Your task to perform on an android device: create a new album in the google photos Image 0: 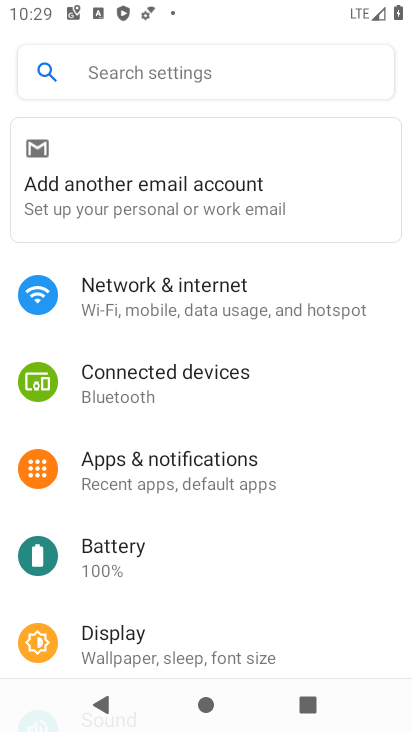
Step 0: press home button
Your task to perform on an android device: create a new album in the google photos Image 1: 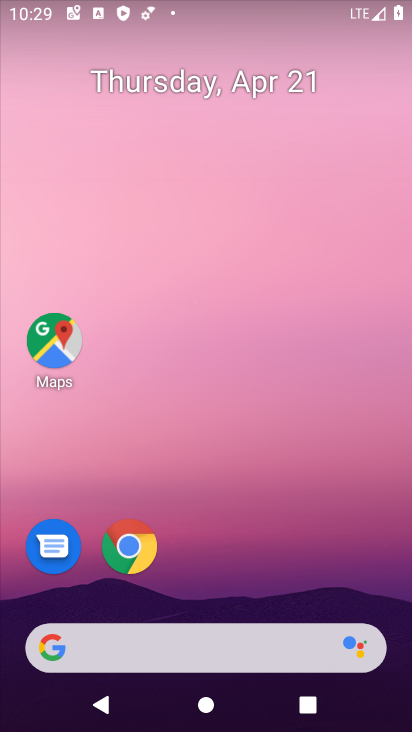
Step 1: drag from (384, 625) to (325, 176)
Your task to perform on an android device: create a new album in the google photos Image 2: 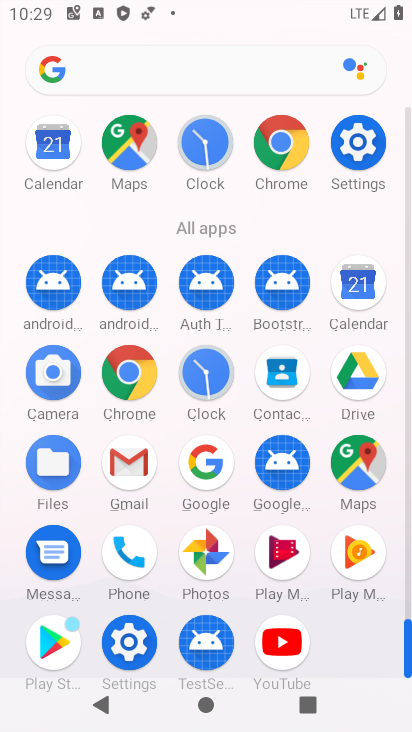
Step 2: click (203, 551)
Your task to perform on an android device: create a new album in the google photos Image 3: 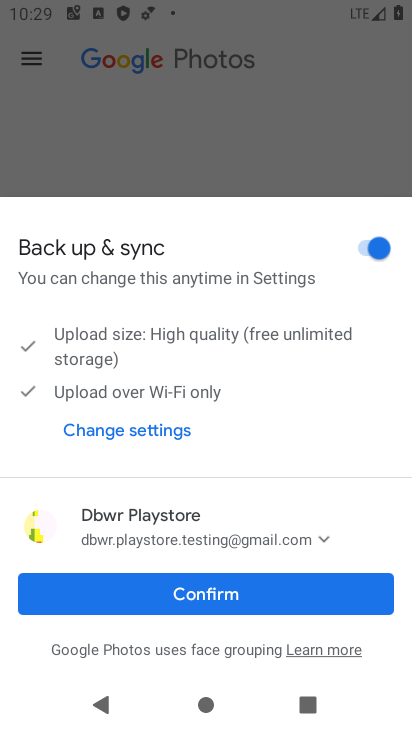
Step 3: click (210, 592)
Your task to perform on an android device: create a new album in the google photos Image 4: 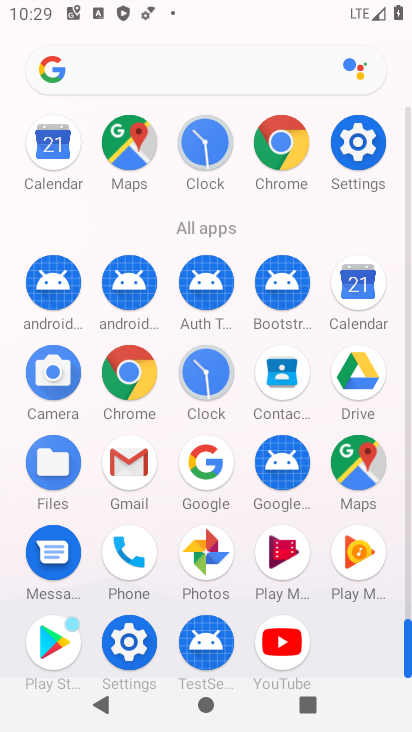
Step 4: click (205, 550)
Your task to perform on an android device: create a new album in the google photos Image 5: 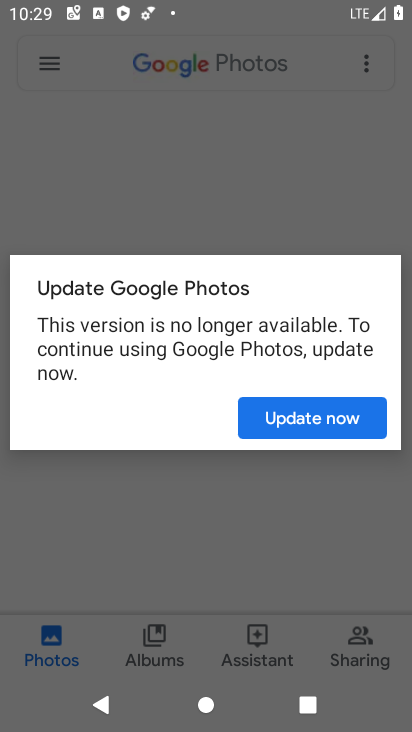
Step 5: click (292, 419)
Your task to perform on an android device: create a new album in the google photos Image 6: 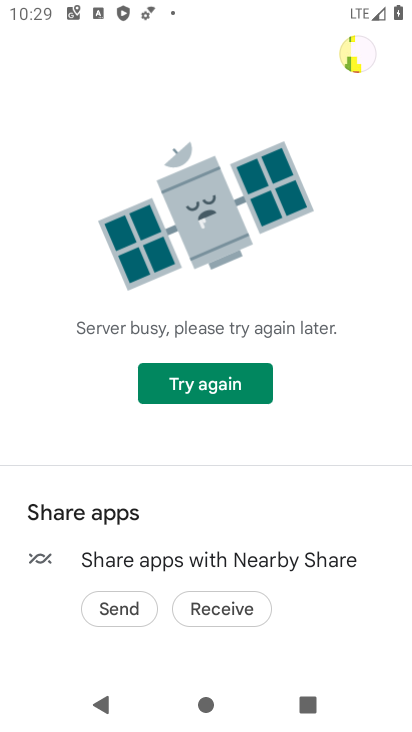
Step 6: click (215, 380)
Your task to perform on an android device: create a new album in the google photos Image 7: 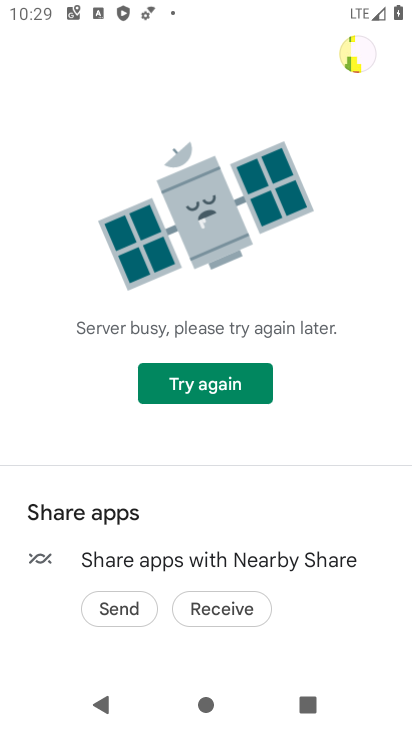
Step 7: task complete